Your task to perform on an android device: clear all cookies in the chrome app Image 0: 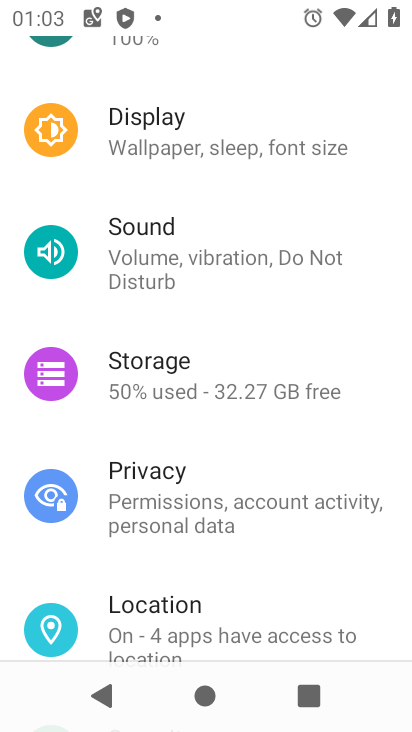
Step 0: press home button
Your task to perform on an android device: clear all cookies in the chrome app Image 1: 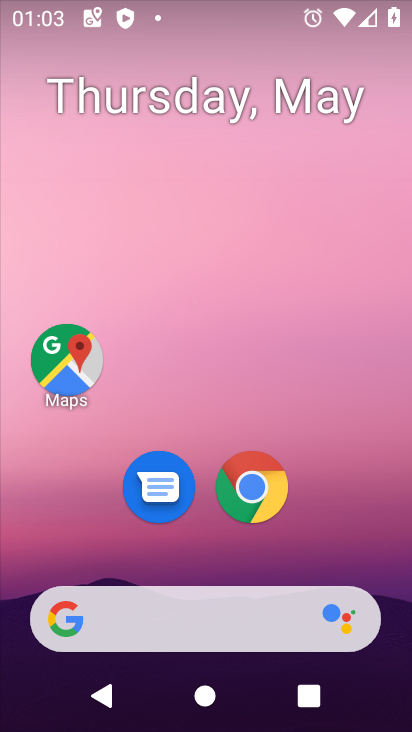
Step 1: click (259, 500)
Your task to perform on an android device: clear all cookies in the chrome app Image 2: 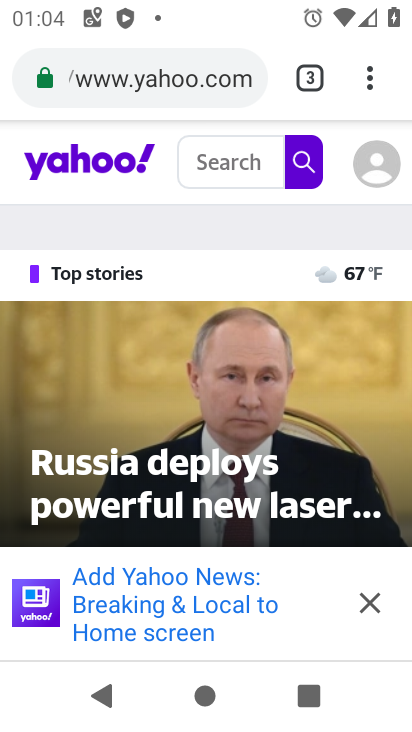
Step 2: click (369, 73)
Your task to perform on an android device: clear all cookies in the chrome app Image 3: 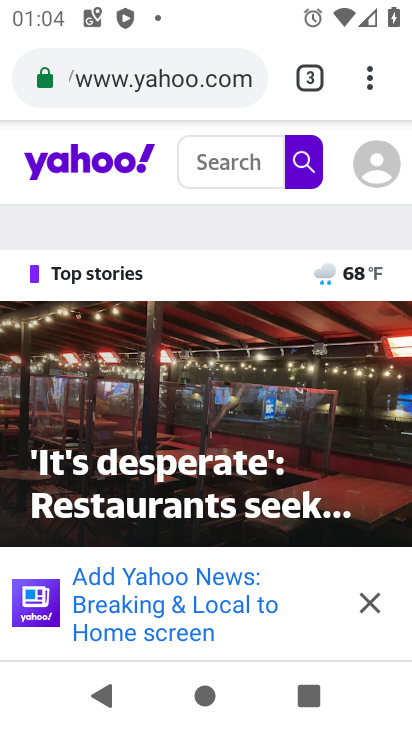
Step 3: click (369, 73)
Your task to perform on an android device: clear all cookies in the chrome app Image 4: 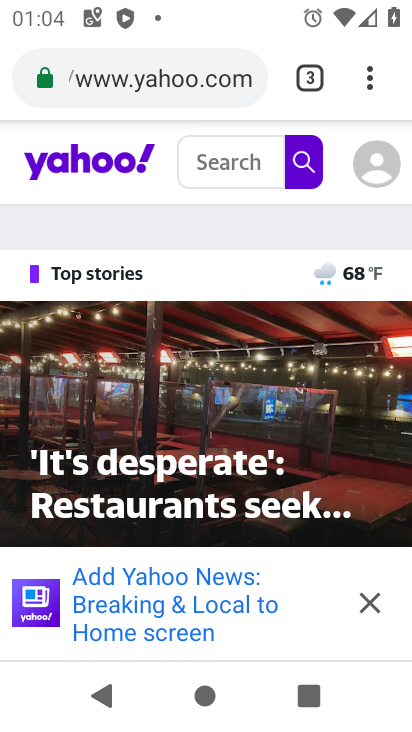
Step 4: click (369, 73)
Your task to perform on an android device: clear all cookies in the chrome app Image 5: 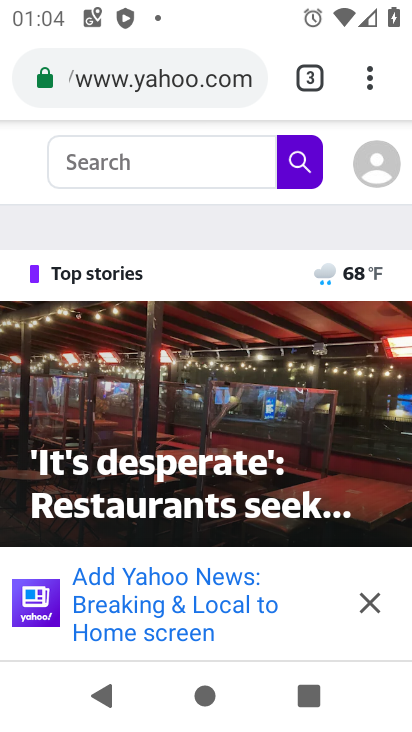
Step 5: drag from (368, 75) to (103, 559)
Your task to perform on an android device: clear all cookies in the chrome app Image 6: 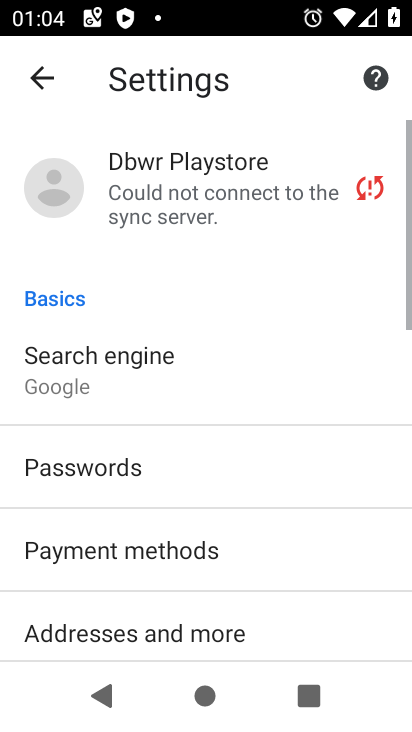
Step 6: drag from (151, 615) to (126, 199)
Your task to perform on an android device: clear all cookies in the chrome app Image 7: 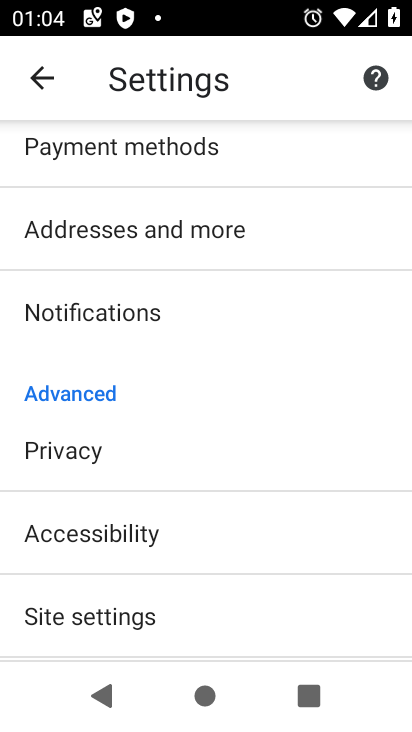
Step 7: click (58, 449)
Your task to perform on an android device: clear all cookies in the chrome app Image 8: 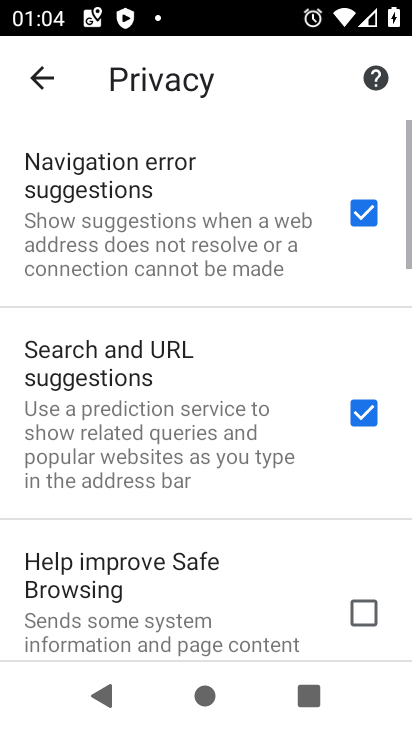
Step 8: drag from (141, 556) to (9, 40)
Your task to perform on an android device: clear all cookies in the chrome app Image 9: 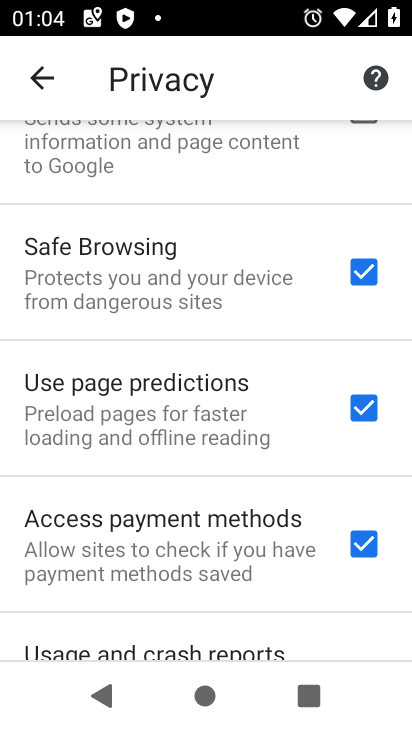
Step 9: drag from (189, 545) to (168, 86)
Your task to perform on an android device: clear all cookies in the chrome app Image 10: 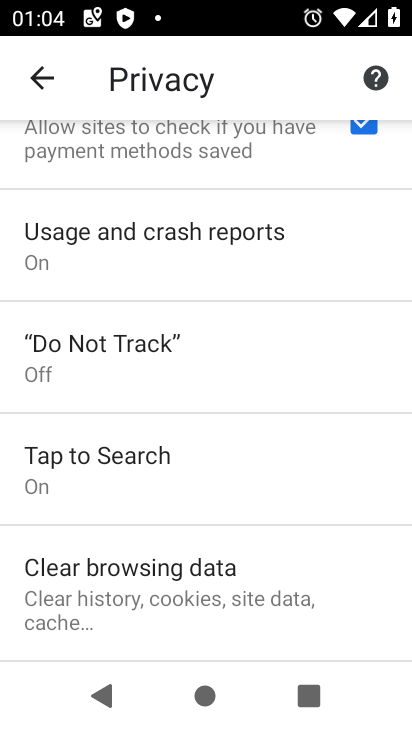
Step 10: drag from (156, 550) to (161, 267)
Your task to perform on an android device: clear all cookies in the chrome app Image 11: 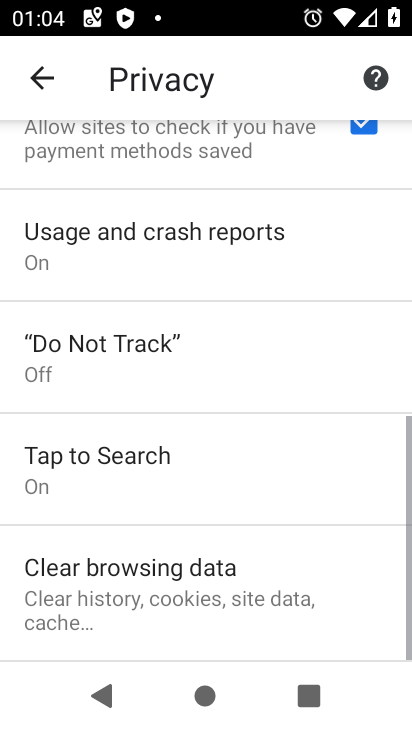
Step 11: click (141, 587)
Your task to perform on an android device: clear all cookies in the chrome app Image 12: 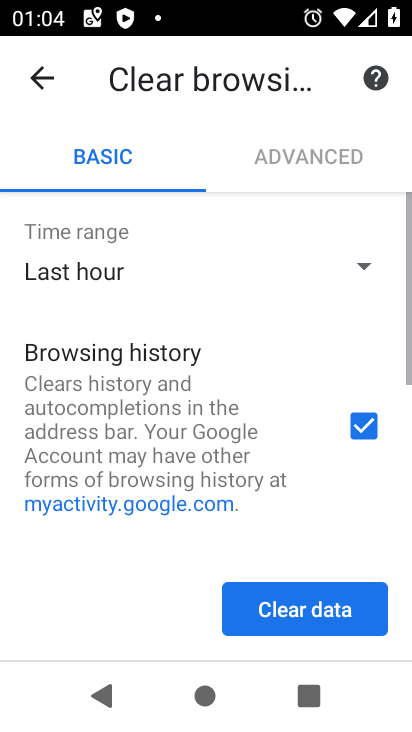
Step 12: drag from (149, 463) to (152, 236)
Your task to perform on an android device: clear all cookies in the chrome app Image 13: 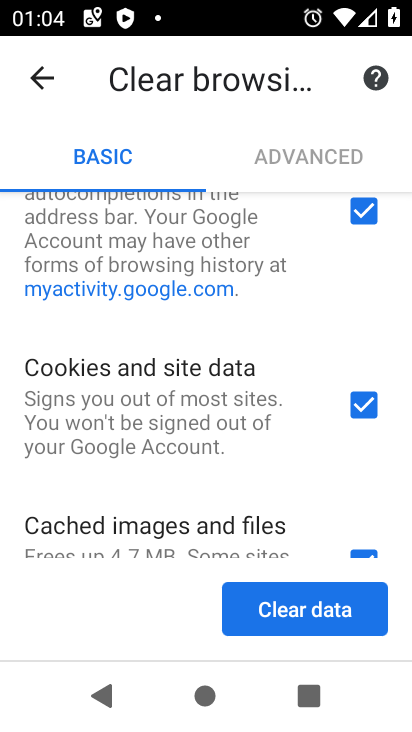
Step 13: click (360, 209)
Your task to perform on an android device: clear all cookies in the chrome app Image 14: 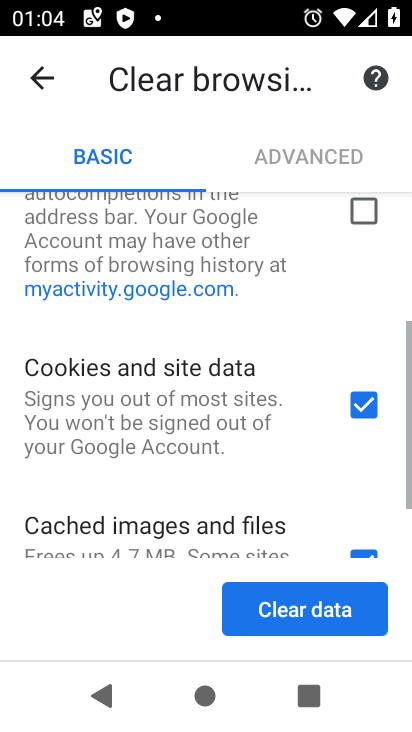
Step 14: drag from (129, 437) to (110, 180)
Your task to perform on an android device: clear all cookies in the chrome app Image 15: 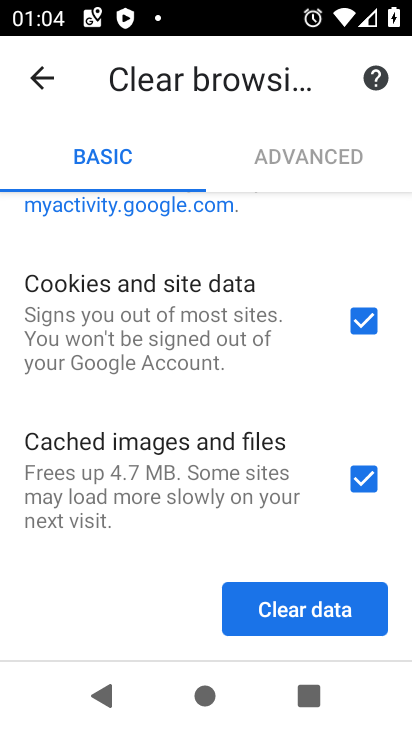
Step 15: click (365, 483)
Your task to perform on an android device: clear all cookies in the chrome app Image 16: 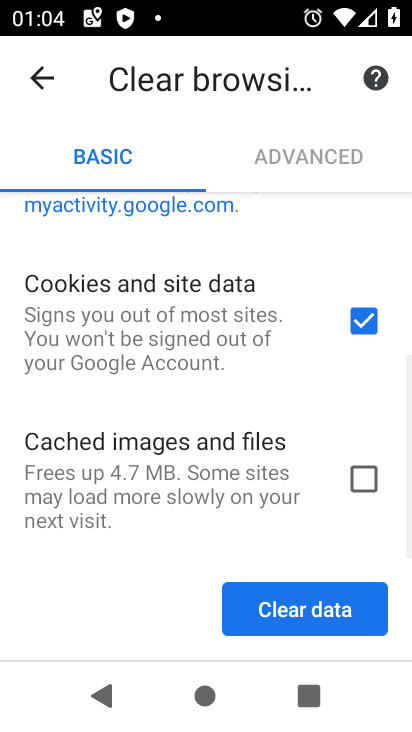
Step 16: click (294, 620)
Your task to perform on an android device: clear all cookies in the chrome app Image 17: 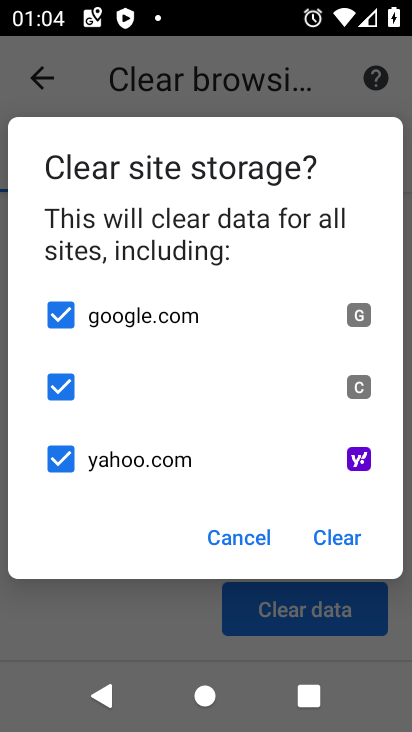
Step 17: click (350, 539)
Your task to perform on an android device: clear all cookies in the chrome app Image 18: 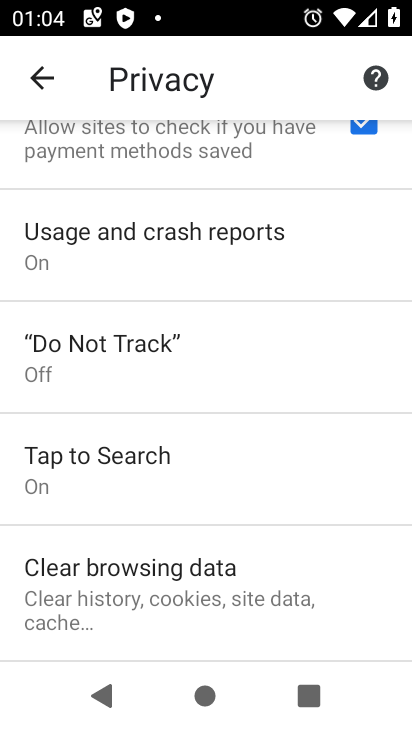
Step 18: task complete